Your task to perform on an android device: toggle notifications settings in the gmail app Image 0: 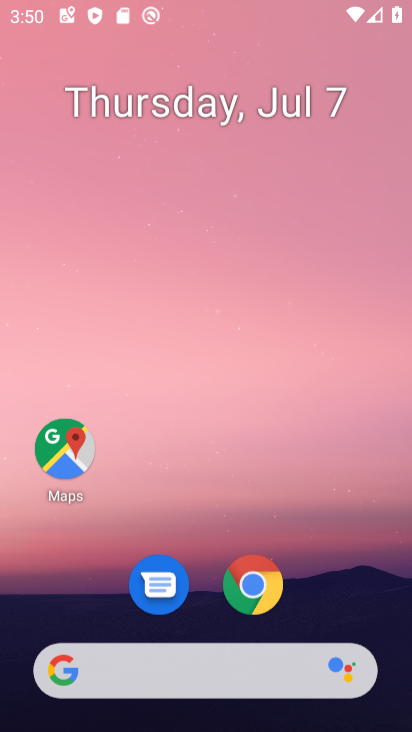
Step 0: click (208, 57)
Your task to perform on an android device: toggle notifications settings in the gmail app Image 1: 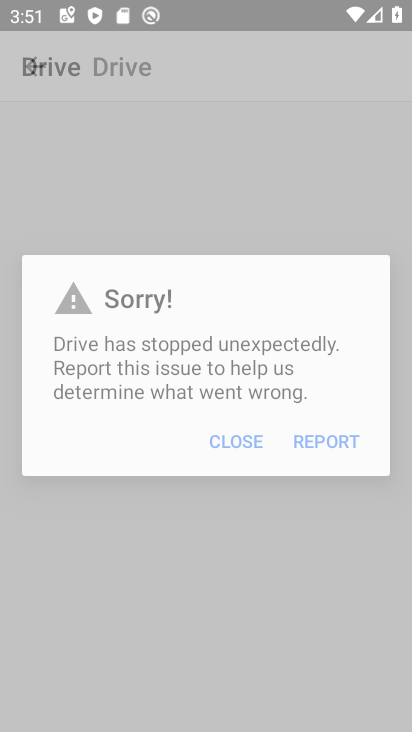
Step 1: press home button
Your task to perform on an android device: toggle notifications settings in the gmail app Image 2: 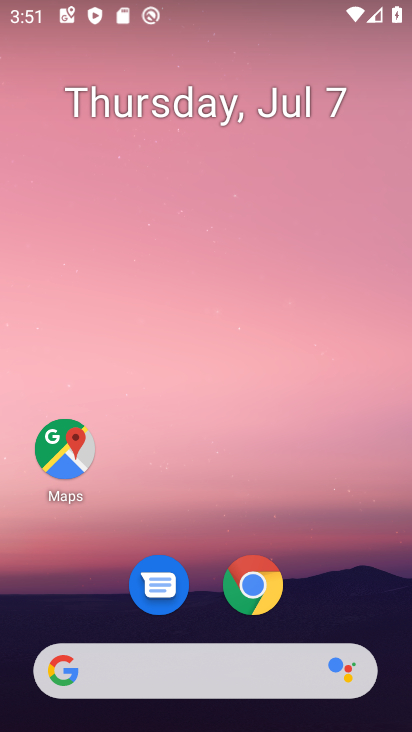
Step 2: drag from (189, 505) to (219, 0)
Your task to perform on an android device: toggle notifications settings in the gmail app Image 3: 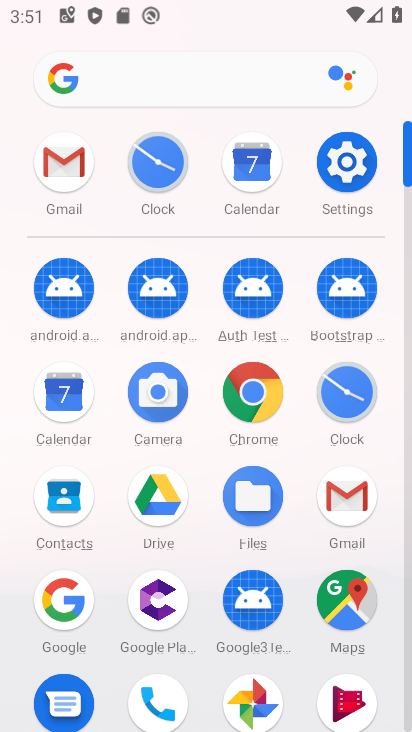
Step 3: click (71, 161)
Your task to perform on an android device: toggle notifications settings in the gmail app Image 4: 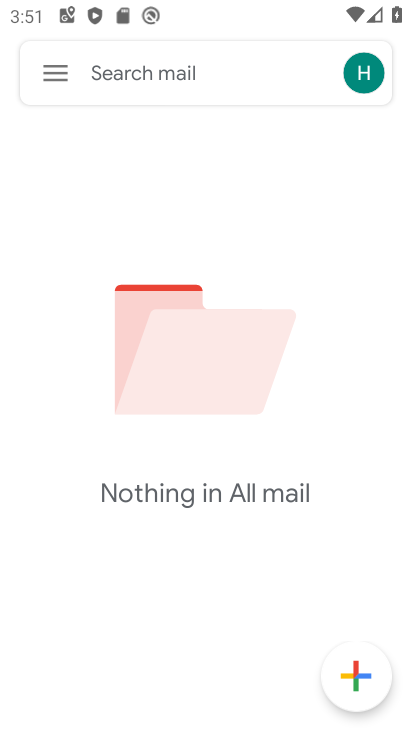
Step 4: click (59, 70)
Your task to perform on an android device: toggle notifications settings in the gmail app Image 5: 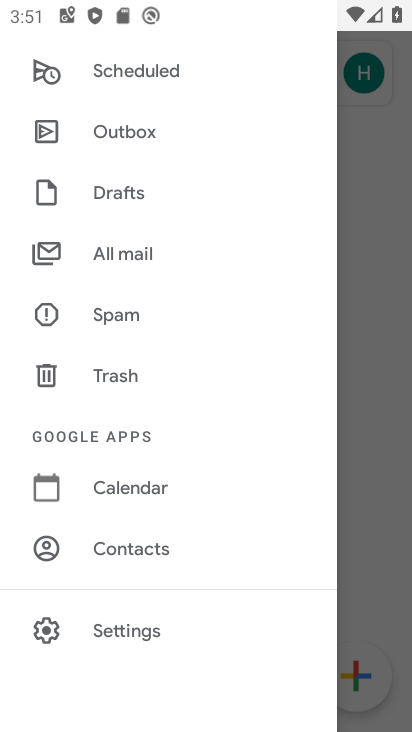
Step 5: click (137, 636)
Your task to perform on an android device: toggle notifications settings in the gmail app Image 6: 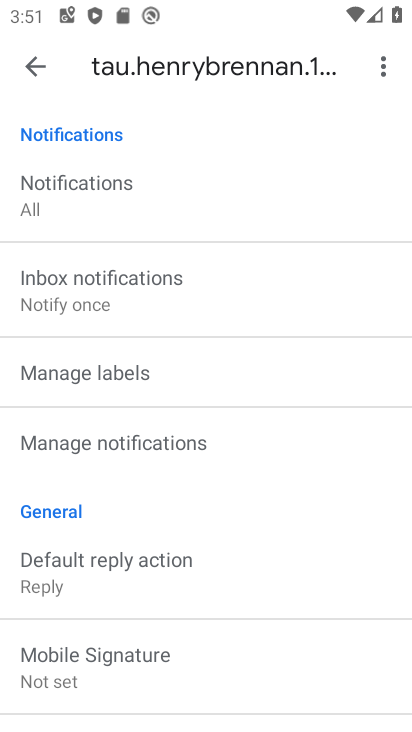
Step 6: click (275, 441)
Your task to perform on an android device: toggle notifications settings in the gmail app Image 7: 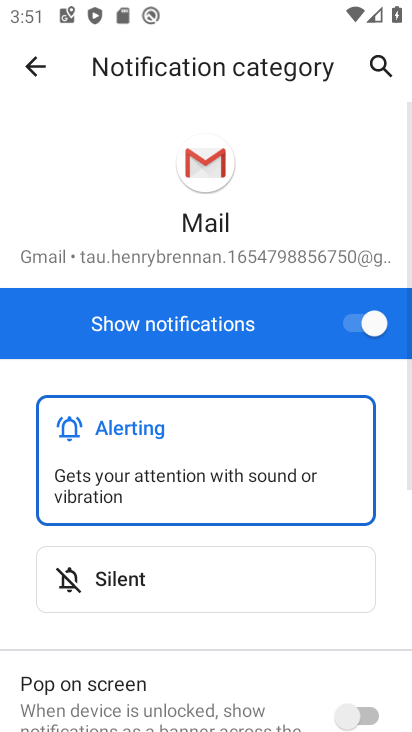
Step 7: click (358, 323)
Your task to perform on an android device: toggle notifications settings in the gmail app Image 8: 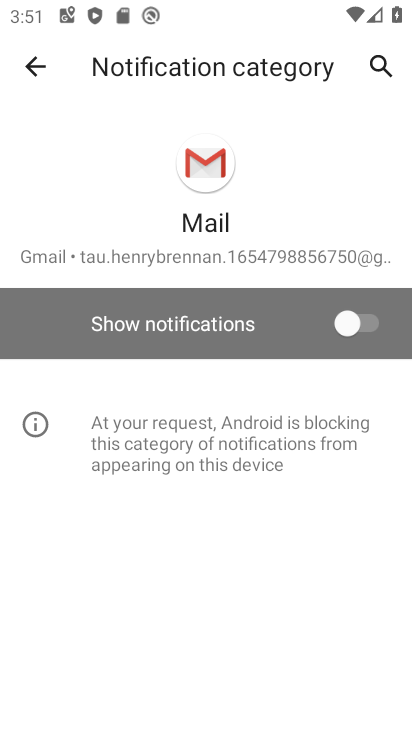
Step 8: task complete